Your task to perform on an android device: set the timer Image 0: 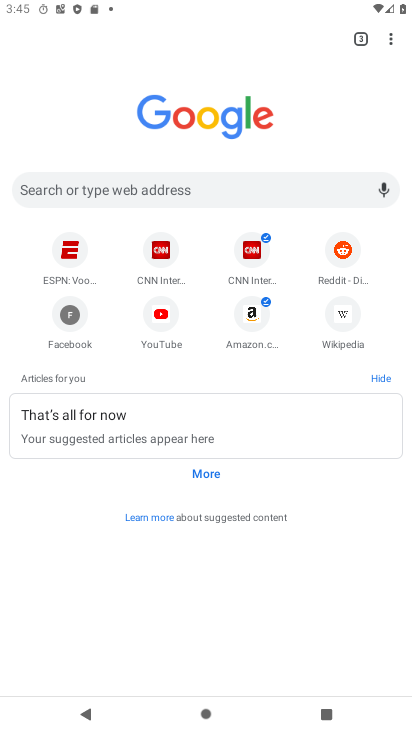
Step 0: press home button
Your task to perform on an android device: set the timer Image 1: 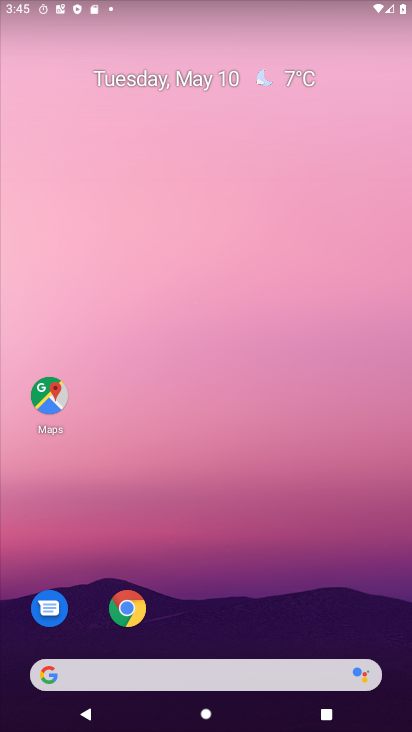
Step 1: drag from (248, 603) to (253, 5)
Your task to perform on an android device: set the timer Image 2: 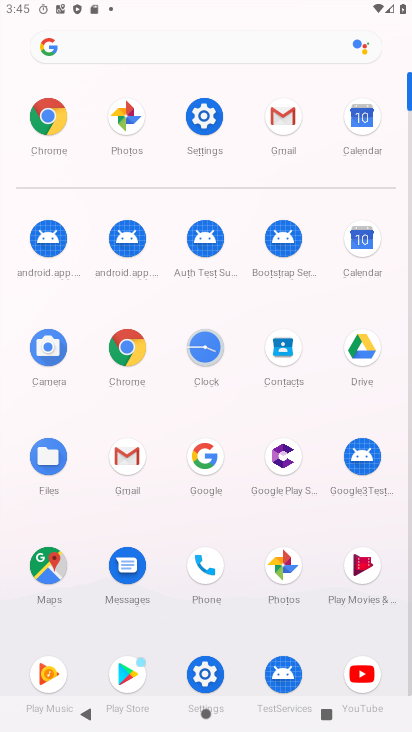
Step 2: click (201, 350)
Your task to perform on an android device: set the timer Image 3: 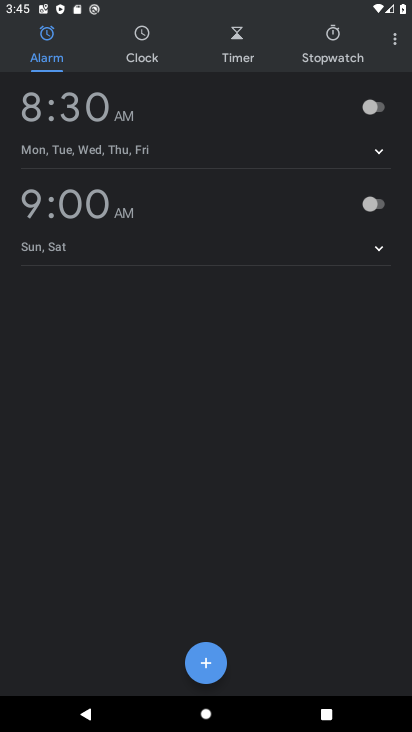
Step 3: click (239, 55)
Your task to perform on an android device: set the timer Image 4: 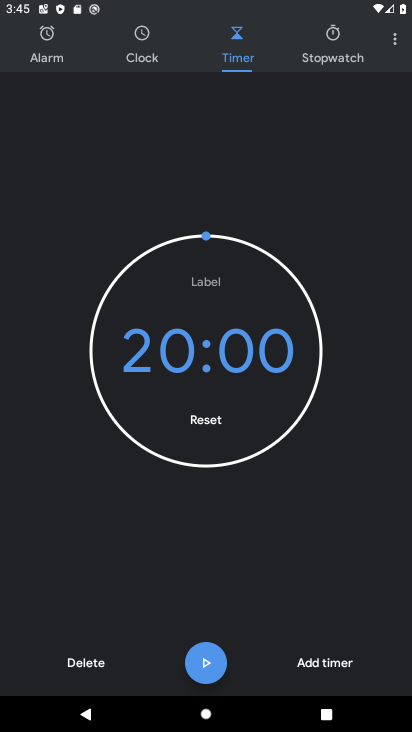
Step 4: click (81, 664)
Your task to perform on an android device: set the timer Image 5: 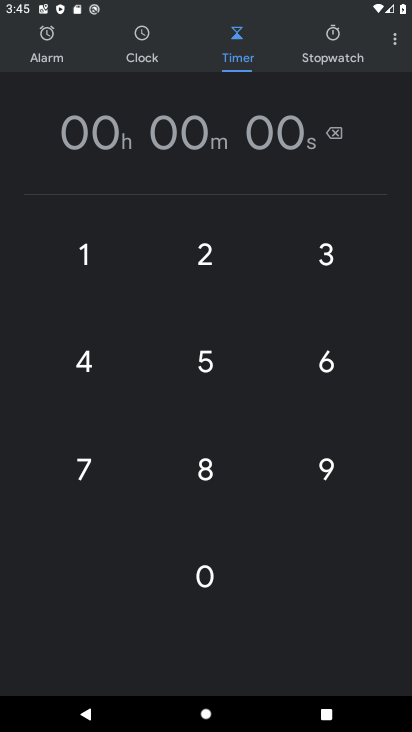
Step 5: click (205, 259)
Your task to perform on an android device: set the timer Image 6: 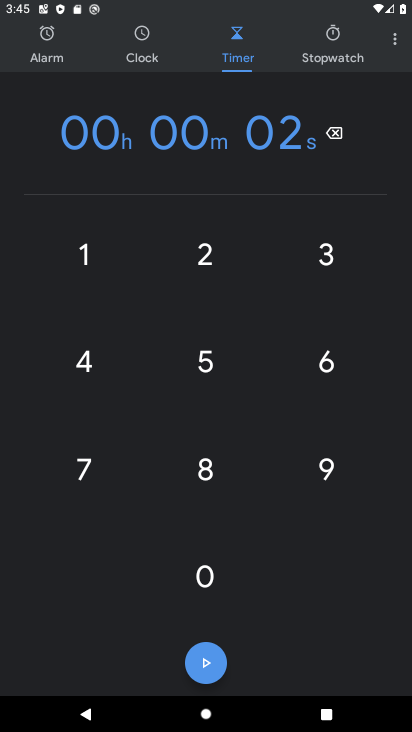
Step 6: click (205, 374)
Your task to perform on an android device: set the timer Image 7: 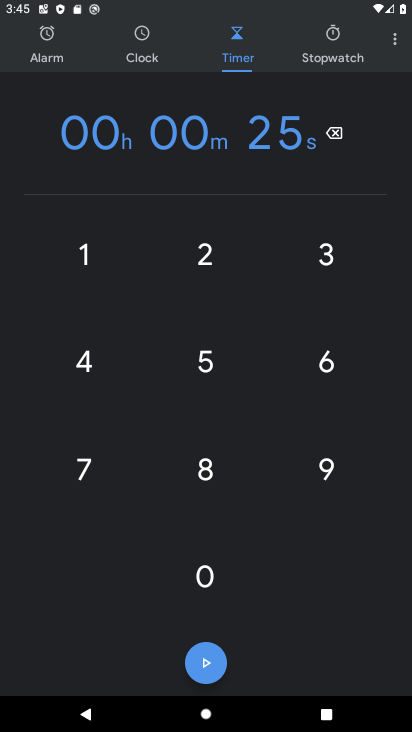
Step 7: click (216, 652)
Your task to perform on an android device: set the timer Image 8: 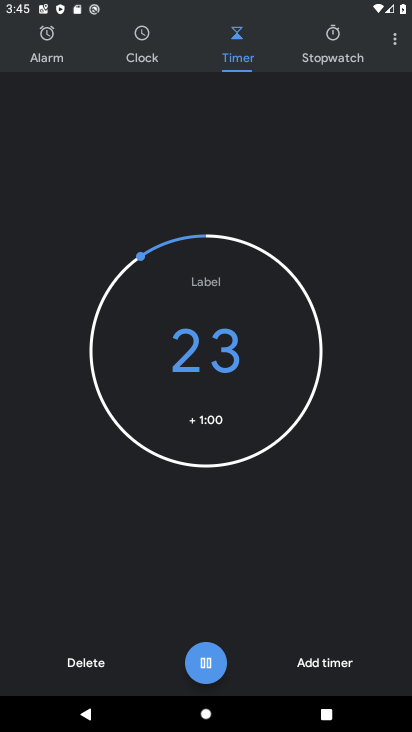
Step 8: task complete